Your task to perform on an android device: Is it going to rain today? Image 0: 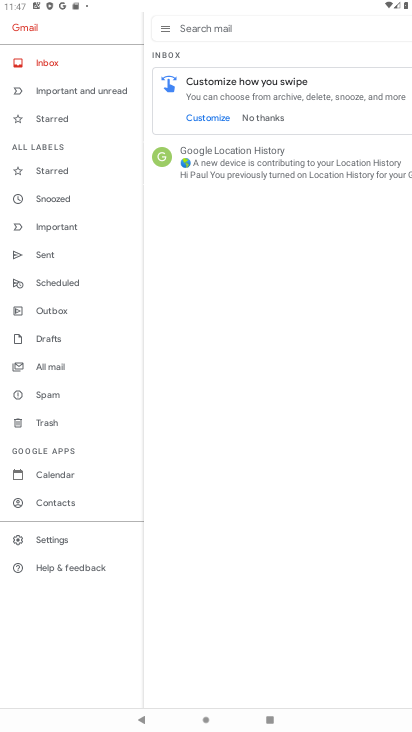
Step 0: press home button
Your task to perform on an android device: Is it going to rain today? Image 1: 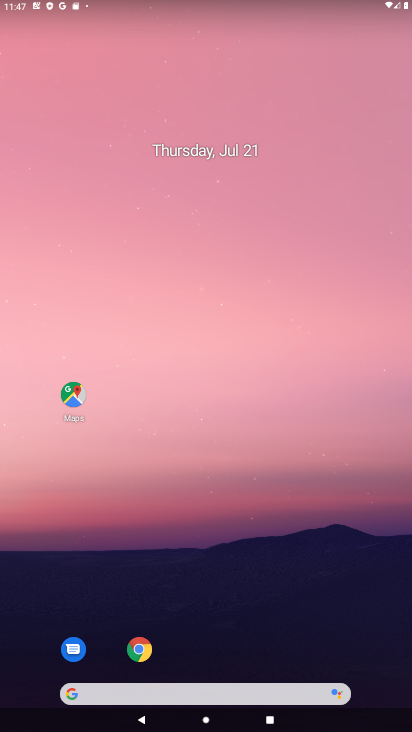
Step 1: drag from (231, 647) to (211, 173)
Your task to perform on an android device: Is it going to rain today? Image 2: 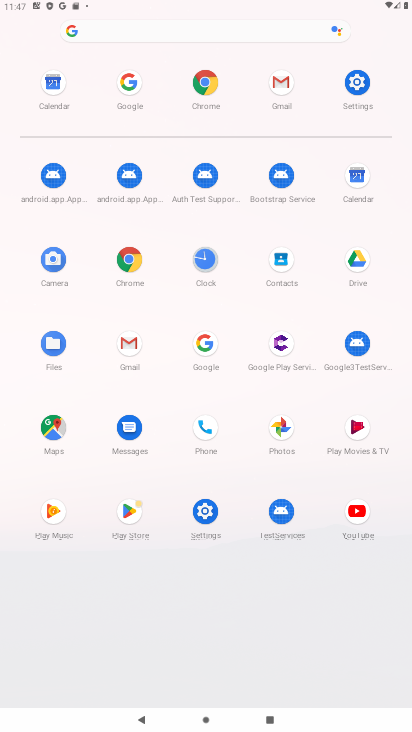
Step 2: click (205, 338)
Your task to perform on an android device: Is it going to rain today? Image 3: 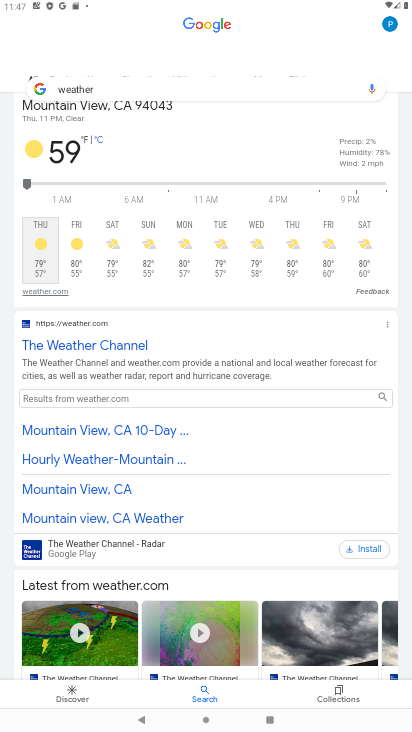
Step 3: task complete